Your task to perform on an android device: turn on improve location accuracy Image 0: 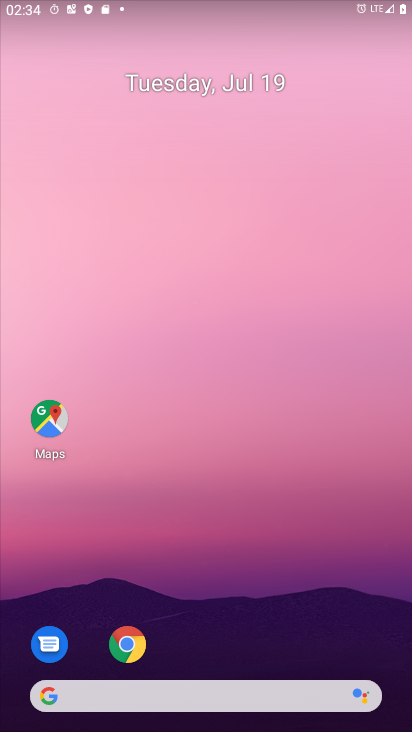
Step 0: drag from (236, 701) to (279, 201)
Your task to perform on an android device: turn on improve location accuracy Image 1: 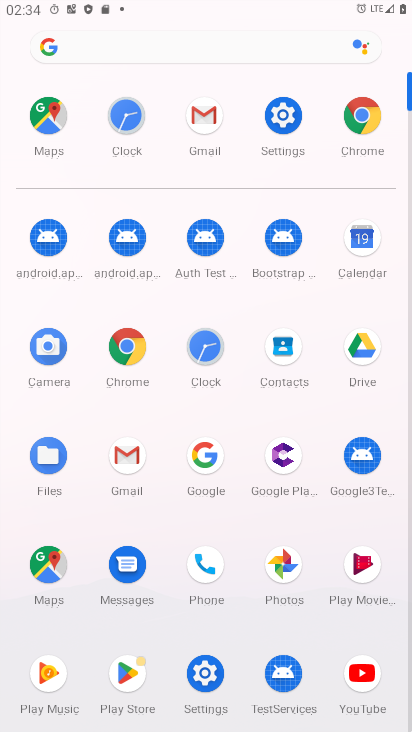
Step 1: click (282, 112)
Your task to perform on an android device: turn on improve location accuracy Image 2: 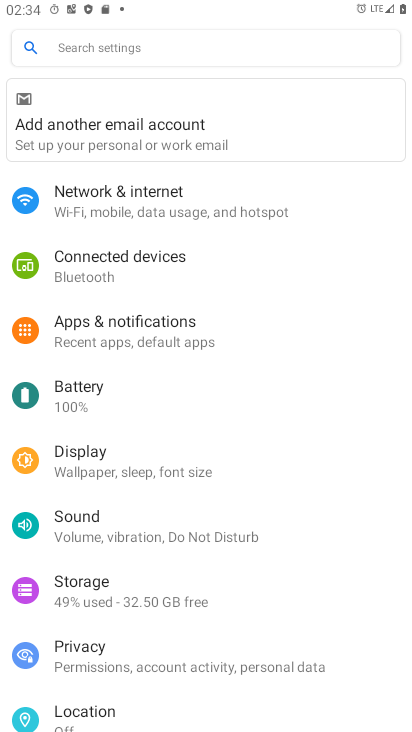
Step 2: click (81, 713)
Your task to perform on an android device: turn on improve location accuracy Image 3: 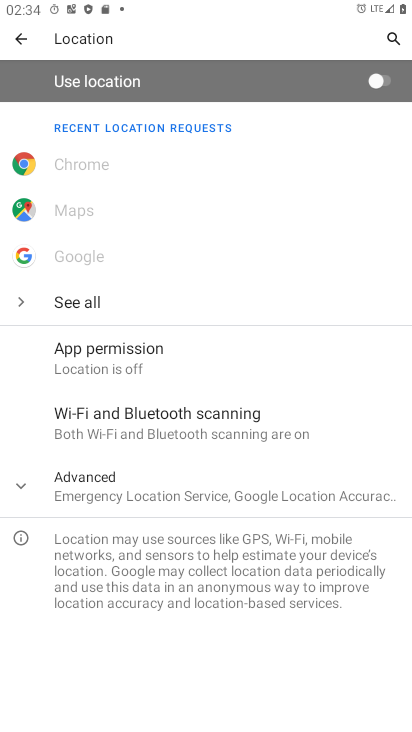
Step 3: click (98, 480)
Your task to perform on an android device: turn on improve location accuracy Image 4: 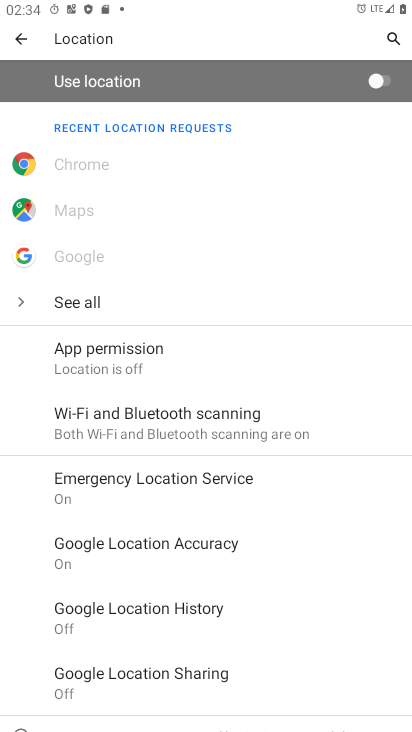
Step 4: click (147, 540)
Your task to perform on an android device: turn on improve location accuracy Image 5: 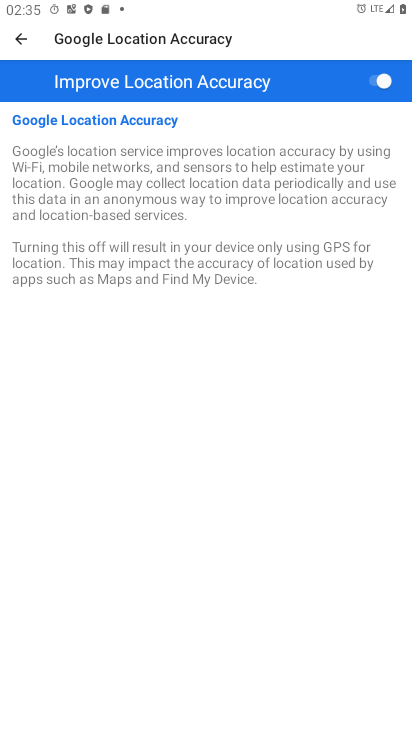
Step 5: task complete